Your task to perform on an android device: Open display settings Image 0: 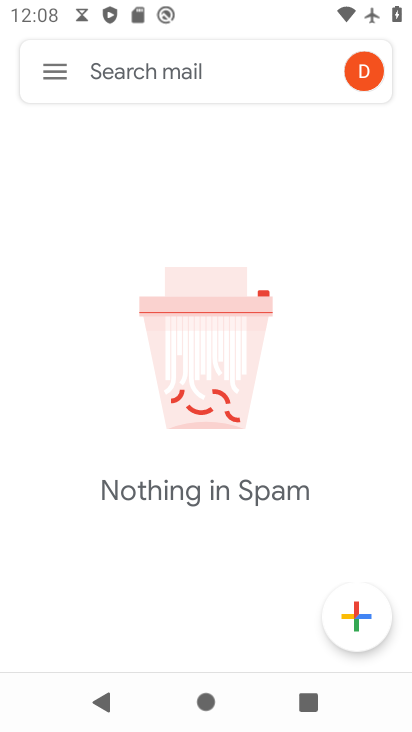
Step 0: press home button
Your task to perform on an android device: Open display settings Image 1: 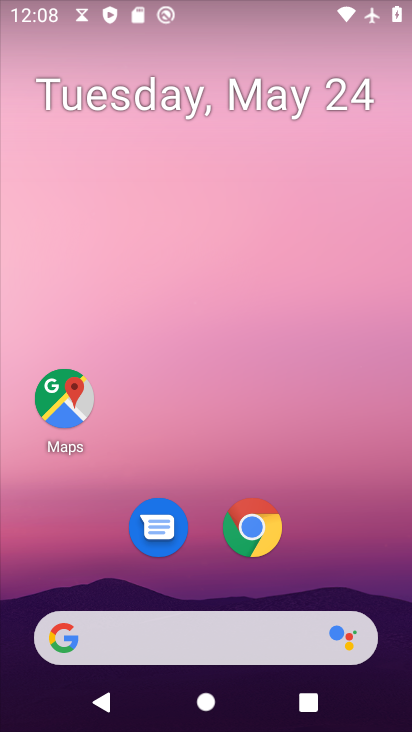
Step 1: drag from (224, 626) to (323, 207)
Your task to perform on an android device: Open display settings Image 2: 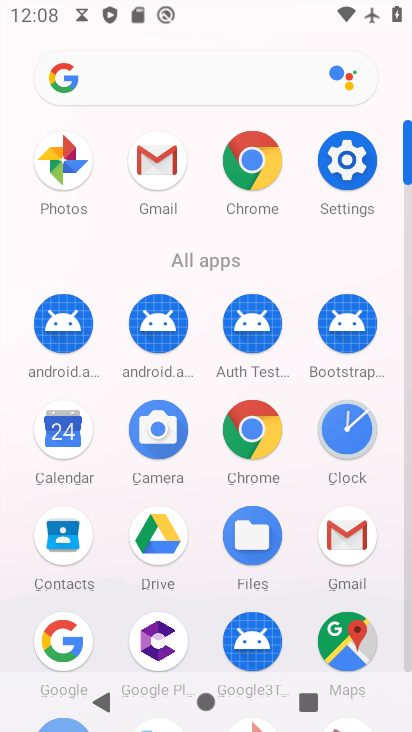
Step 2: click (347, 164)
Your task to perform on an android device: Open display settings Image 3: 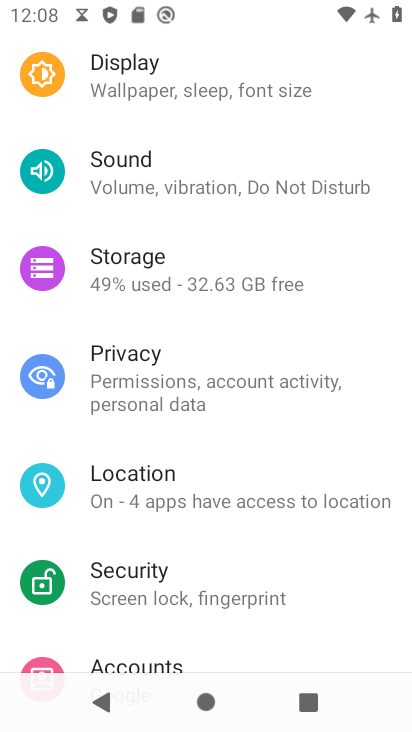
Step 3: click (147, 74)
Your task to perform on an android device: Open display settings Image 4: 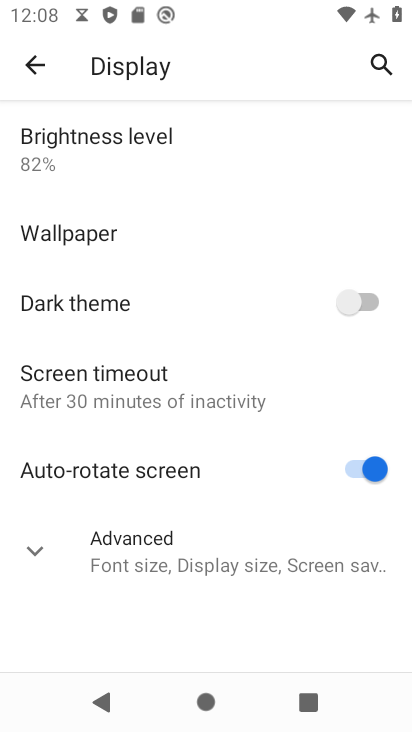
Step 4: task complete